Your task to perform on an android device: Open Chrome and go to the settings page Image 0: 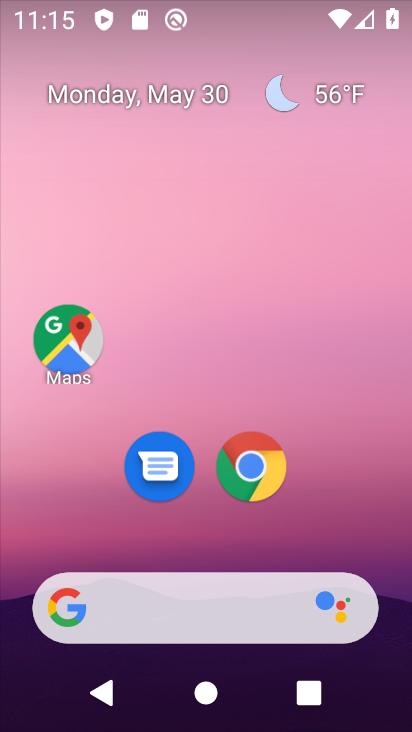
Step 0: click (271, 474)
Your task to perform on an android device: Open Chrome and go to the settings page Image 1: 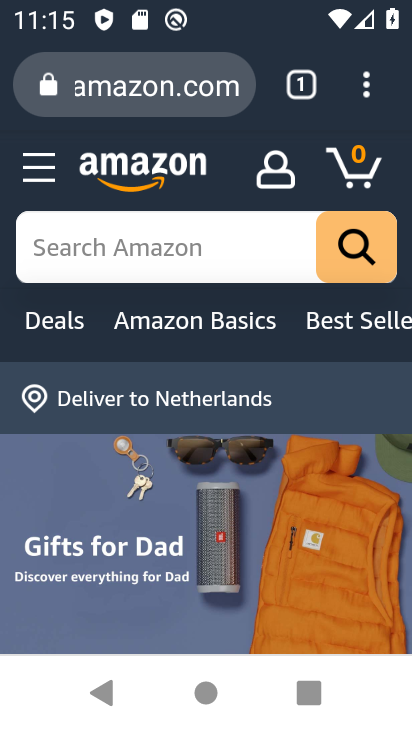
Step 1: click (370, 76)
Your task to perform on an android device: Open Chrome and go to the settings page Image 2: 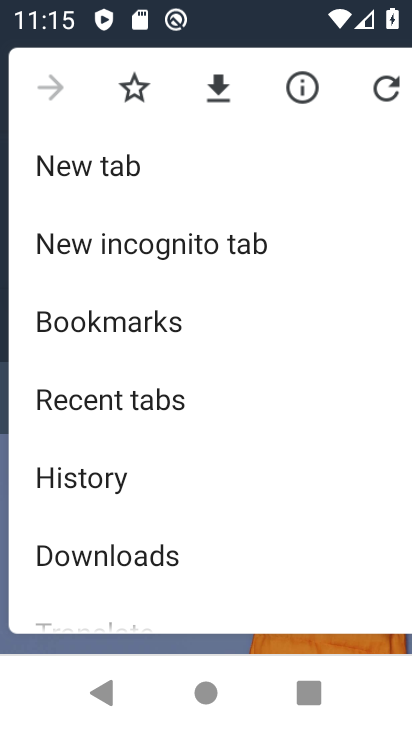
Step 2: drag from (261, 465) to (256, 237)
Your task to perform on an android device: Open Chrome and go to the settings page Image 3: 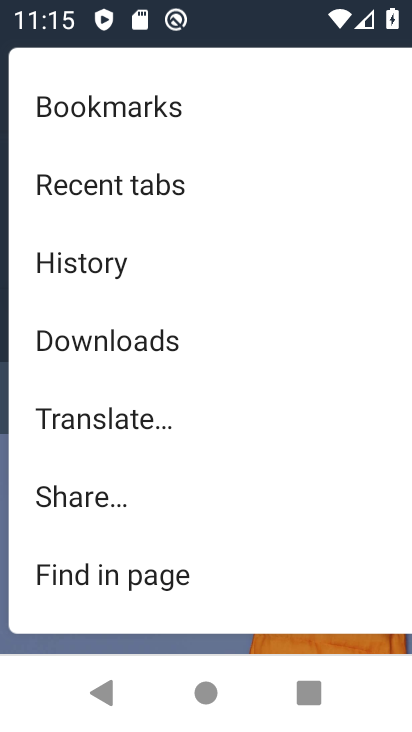
Step 3: drag from (241, 518) to (247, 322)
Your task to perform on an android device: Open Chrome and go to the settings page Image 4: 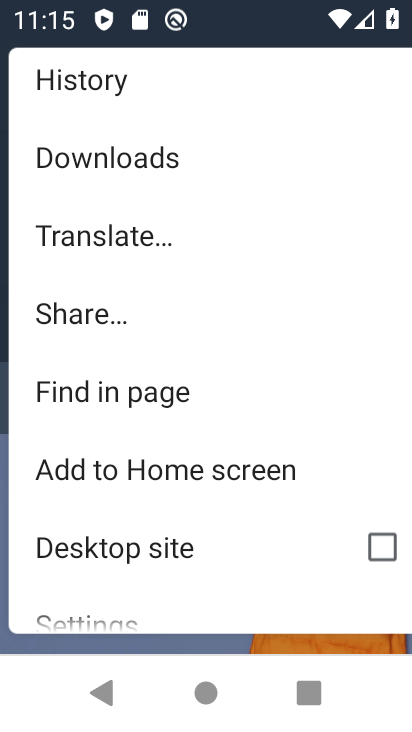
Step 4: drag from (213, 543) to (203, 348)
Your task to perform on an android device: Open Chrome and go to the settings page Image 5: 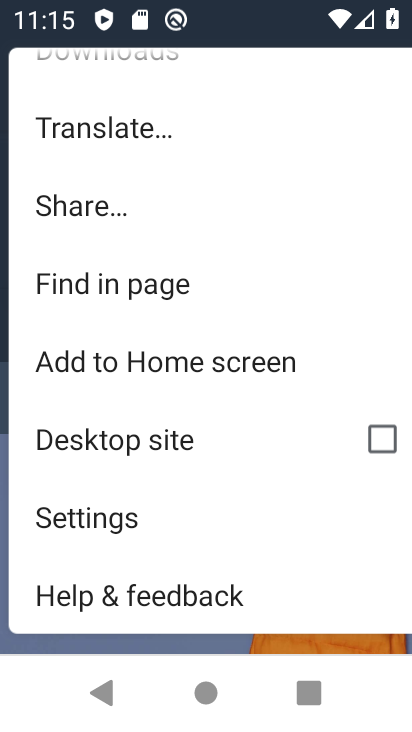
Step 5: click (139, 521)
Your task to perform on an android device: Open Chrome and go to the settings page Image 6: 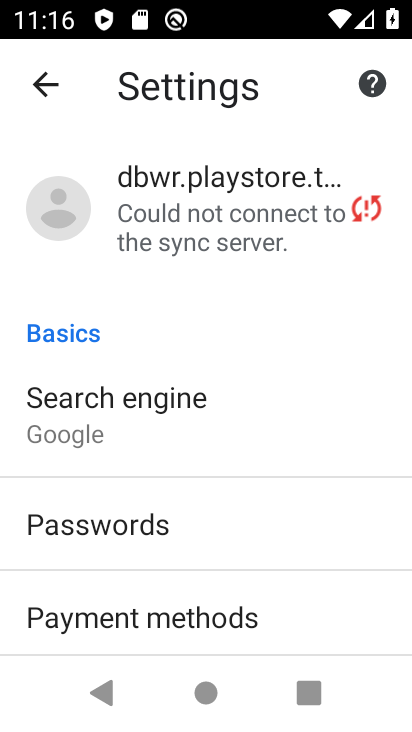
Step 6: task complete